Your task to perform on an android device: Add "macbook air" to the cart on newegg.com Image 0: 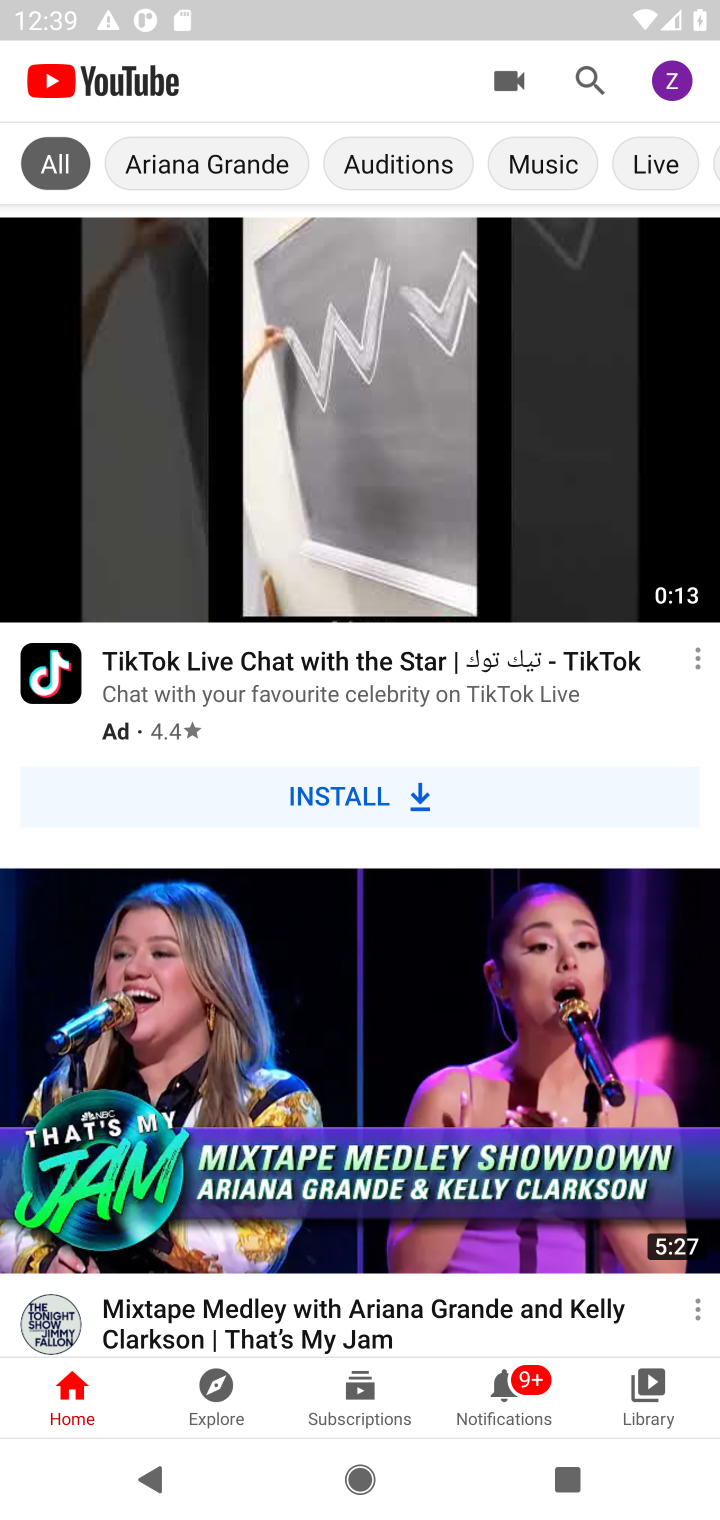
Step 0: press home button
Your task to perform on an android device: Add "macbook air" to the cart on newegg.com Image 1: 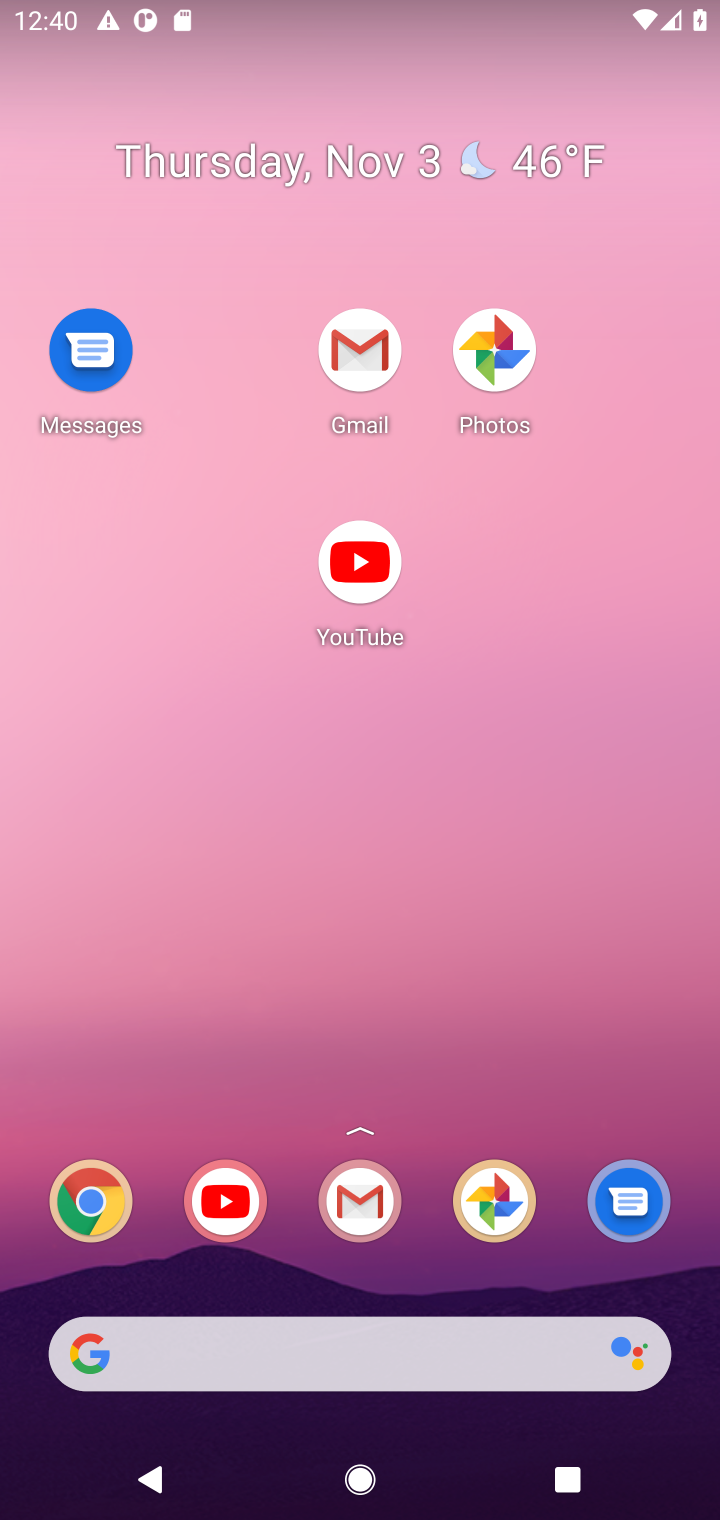
Step 1: drag from (539, 813) to (604, 99)
Your task to perform on an android device: Add "macbook air" to the cart on newegg.com Image 2: 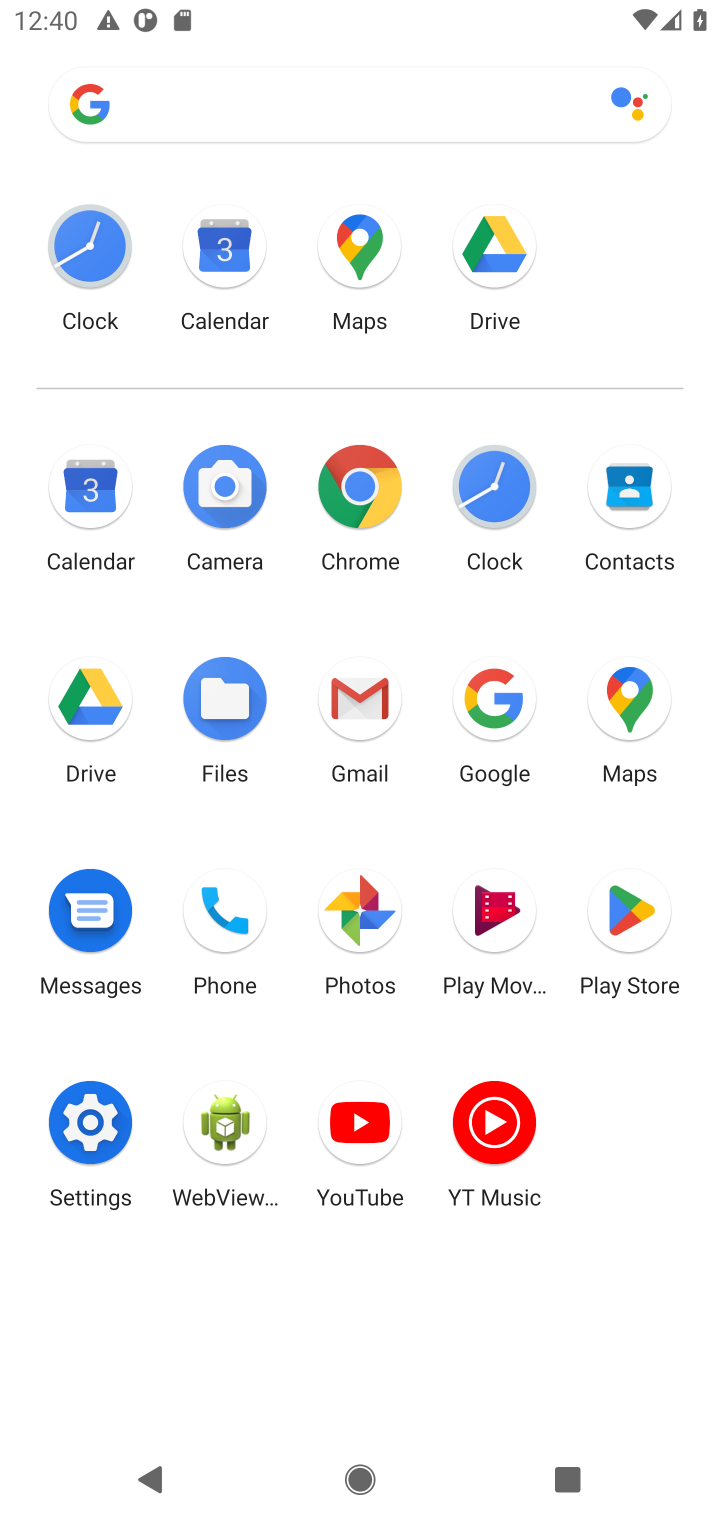
Step 2: click (356, 485)
Your task to perform on an android device: Add "macbook air" to the cart on newegg.com Image 3: 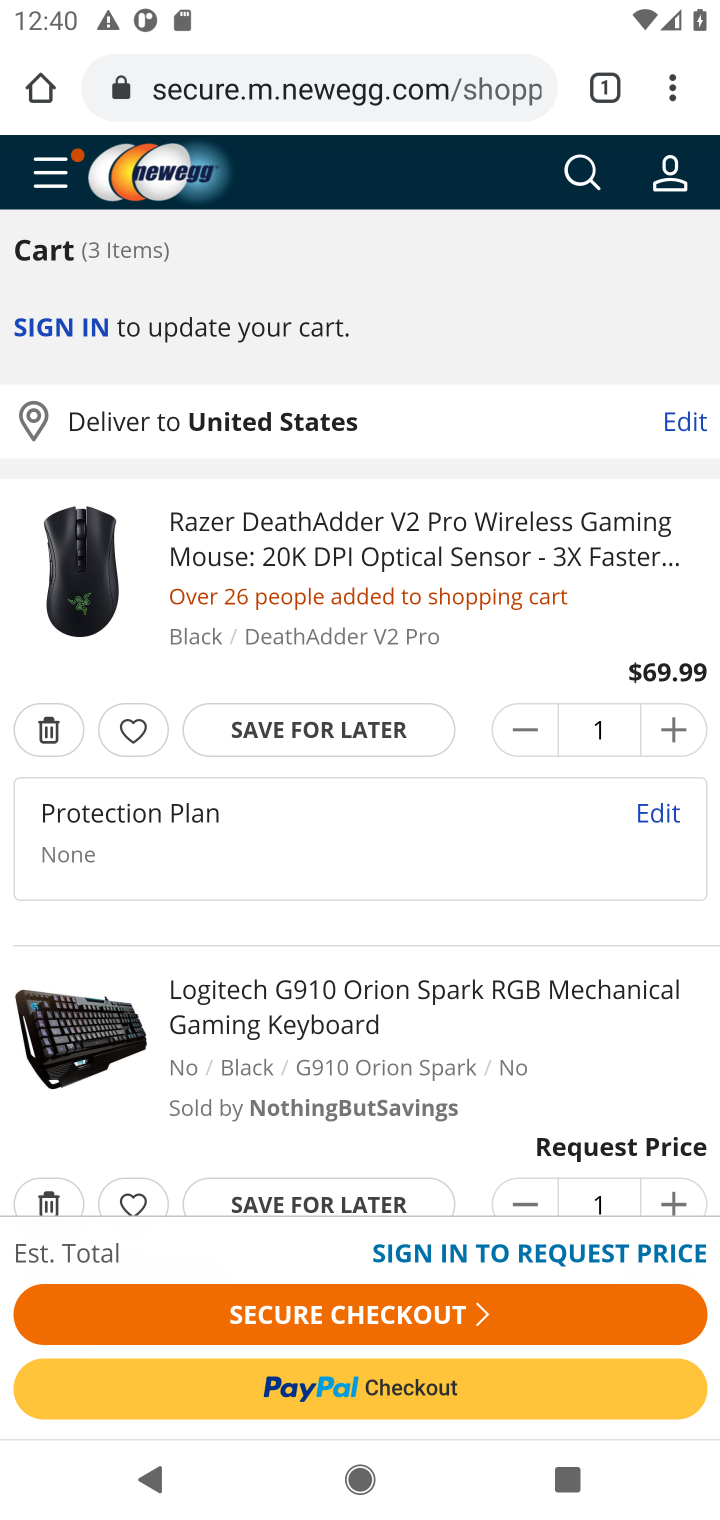
Step 3: click (431, 98)
Your task to perform on an android device: Add "macbook air" to the cart on newegg.com Image 4: 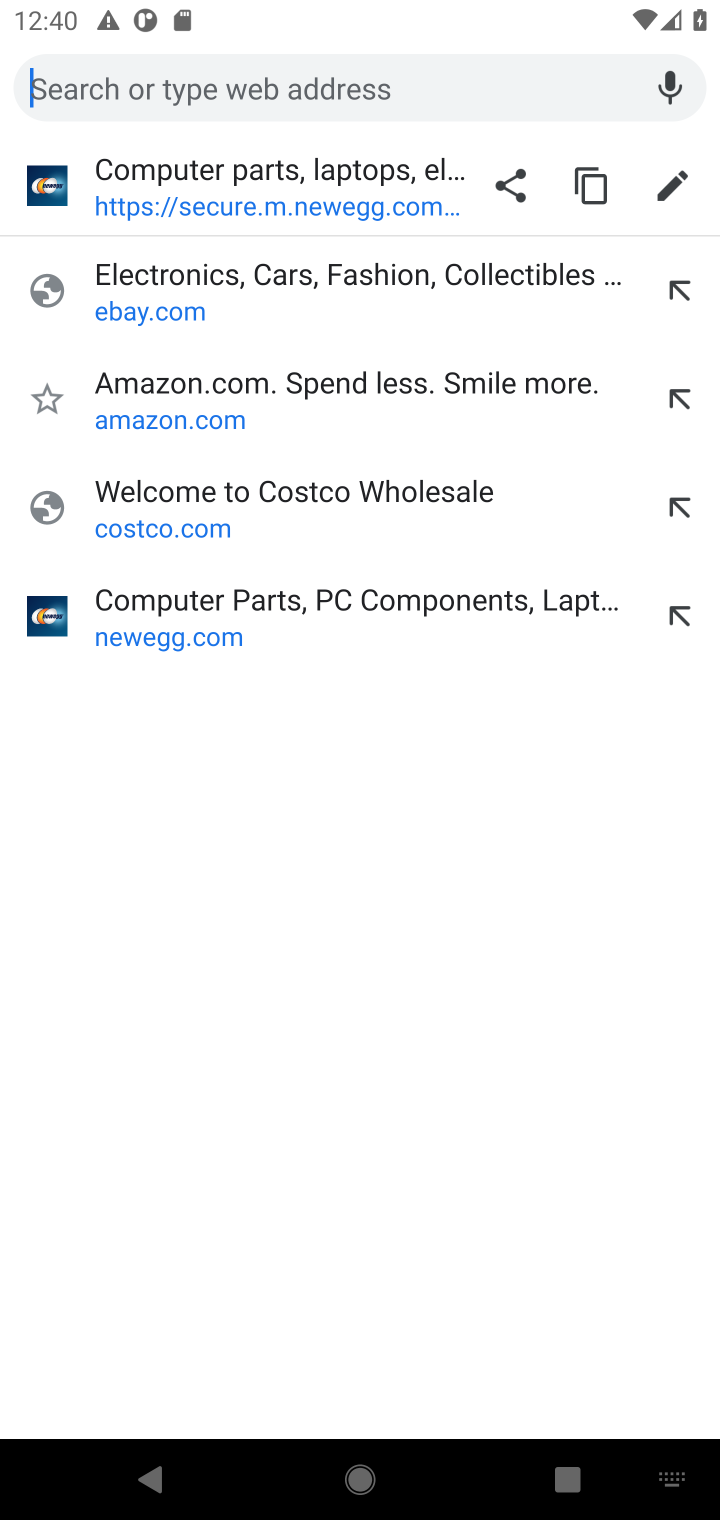
Step 4: type "newegg.com"
Your task to perform on an android device: Add "macbook air" to the cart on newegg.com Image 5: 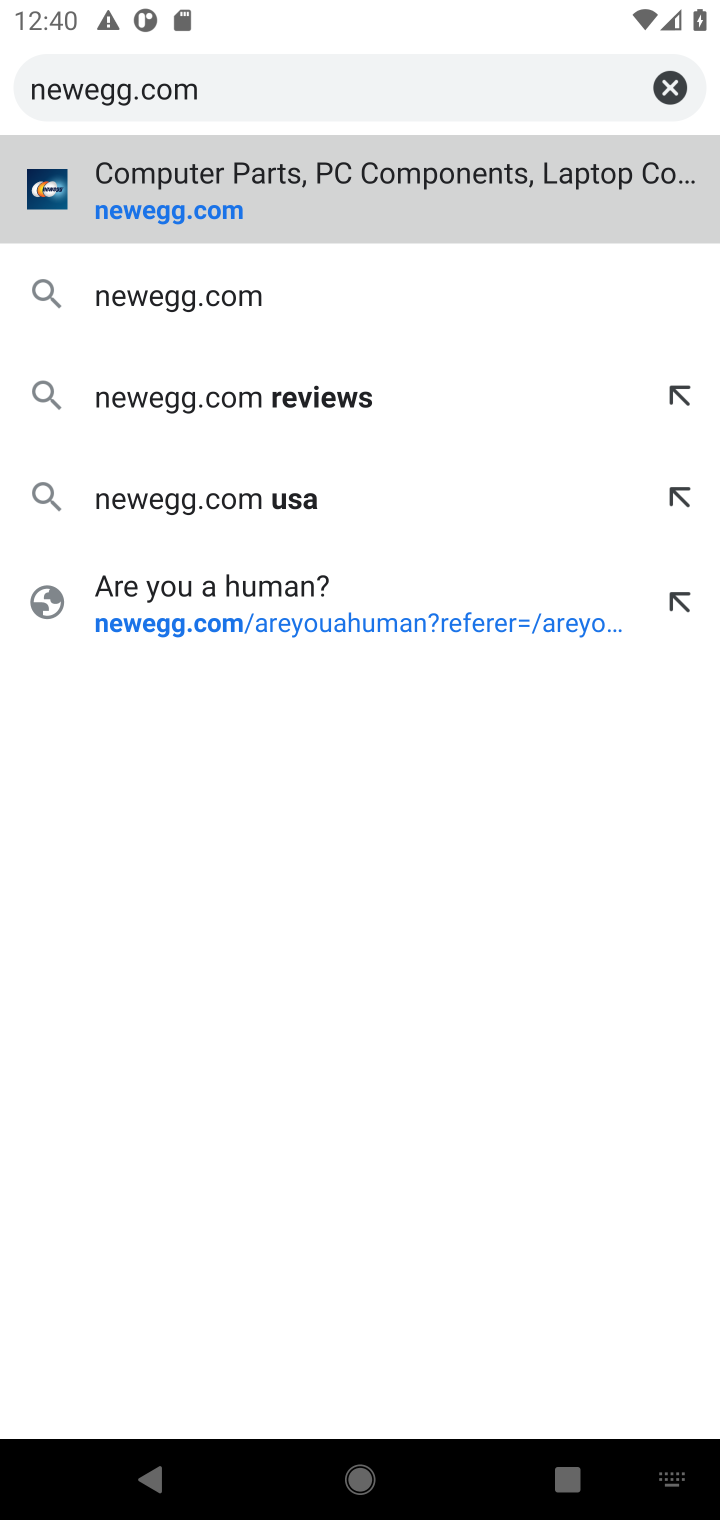
Step 5: press enter
Your task to perform on an android device: Add "macbook air" to the cart on newegg.com Image 6: 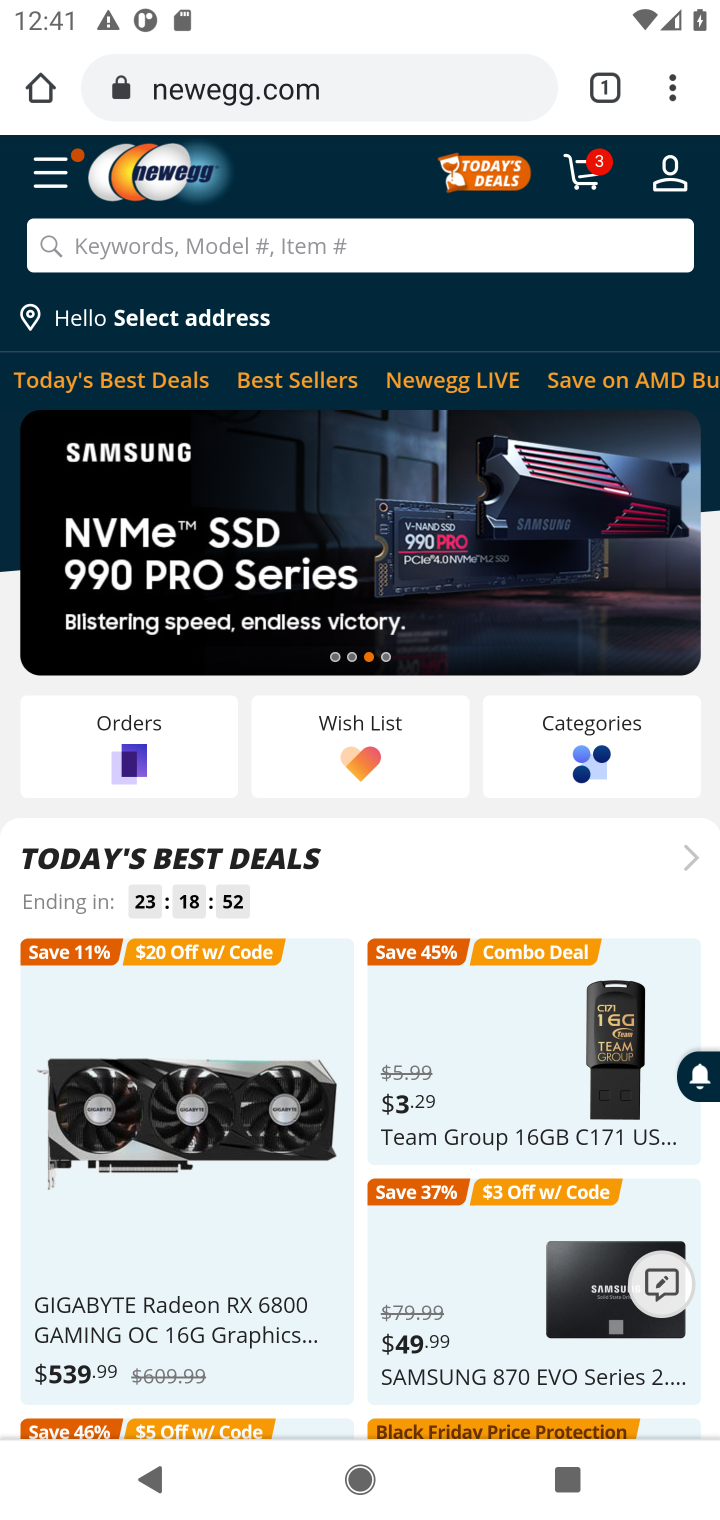
Step 6: click (301, 235)
Your task to perform on an android device: Add "macbook air" to the cart on newegg.com Image 7: 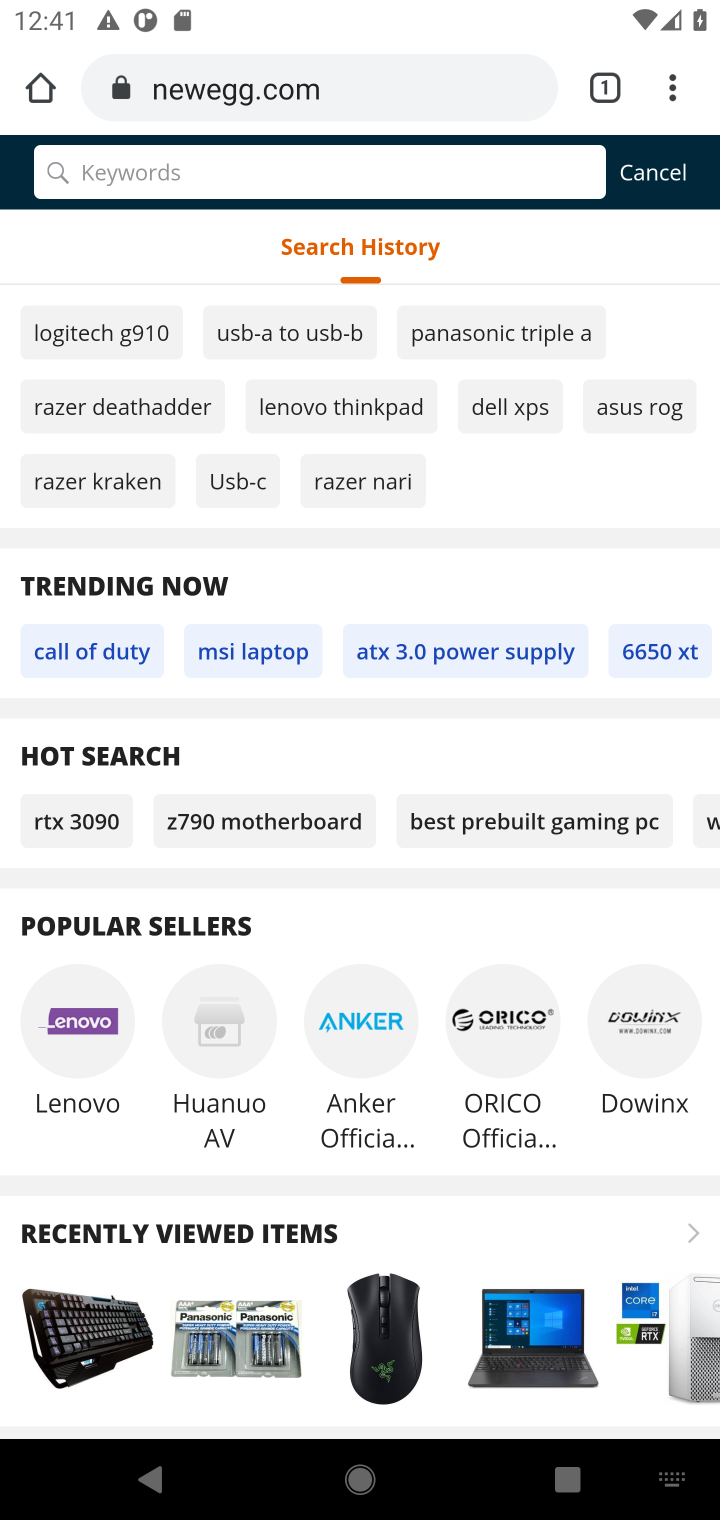
Step 7: type ""
Your task to perform on an android device: Add "macbook air" to the cart on newegg.com Image 8: 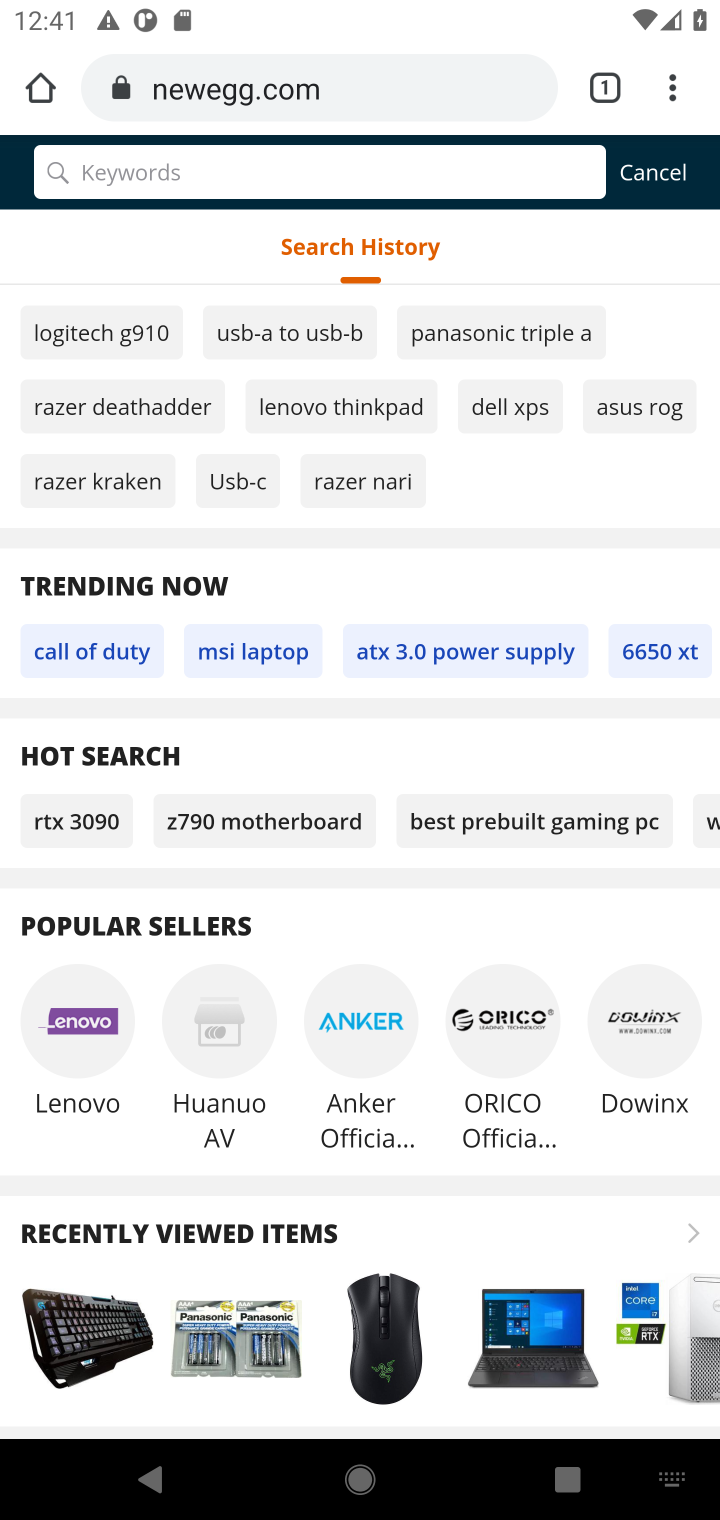
Step 8: type ""
Your task to perform on an android device: Add "macbook air" to the cart on newegg.com Image 9: 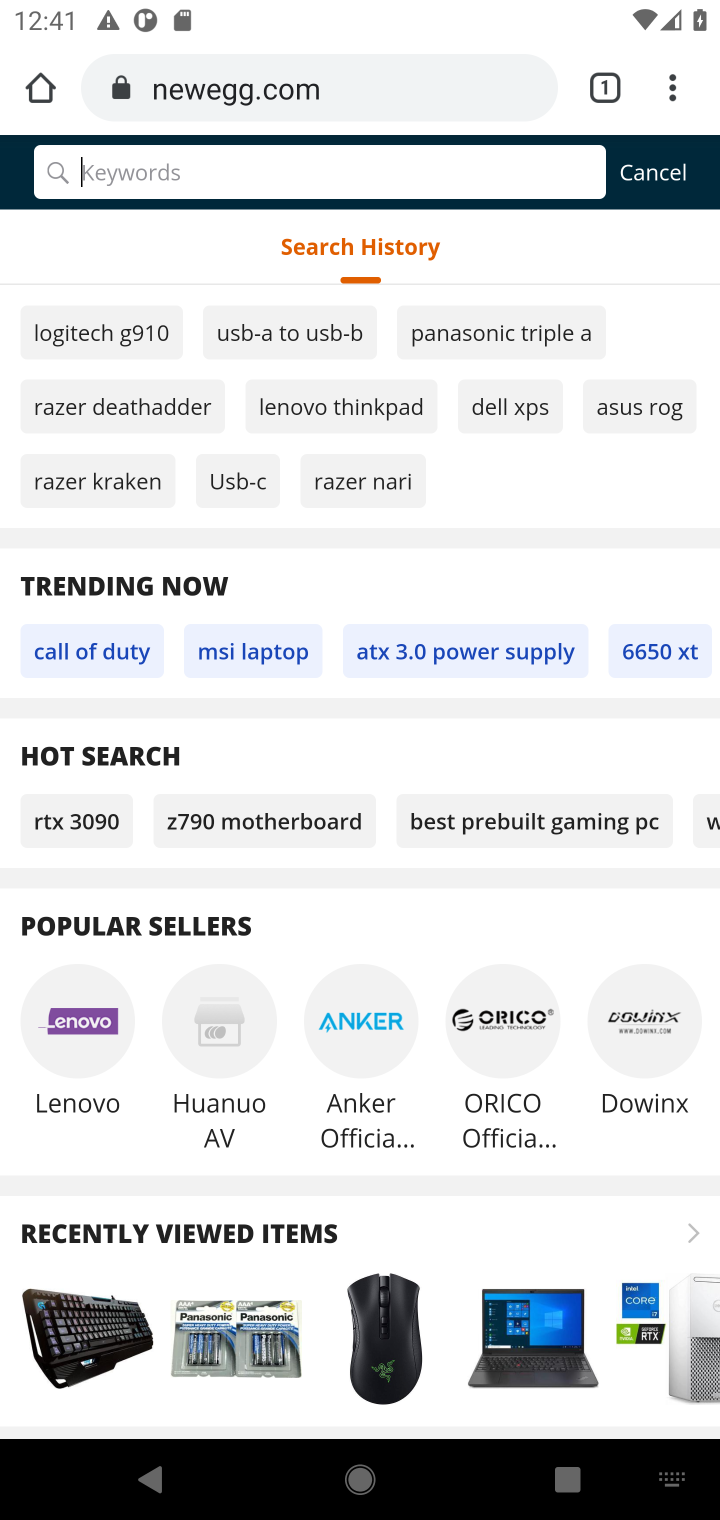
Step 9: type "macbook air"
Your task to perform on an android device: Add "macbook air" to the cart on newegg.com Image 10: 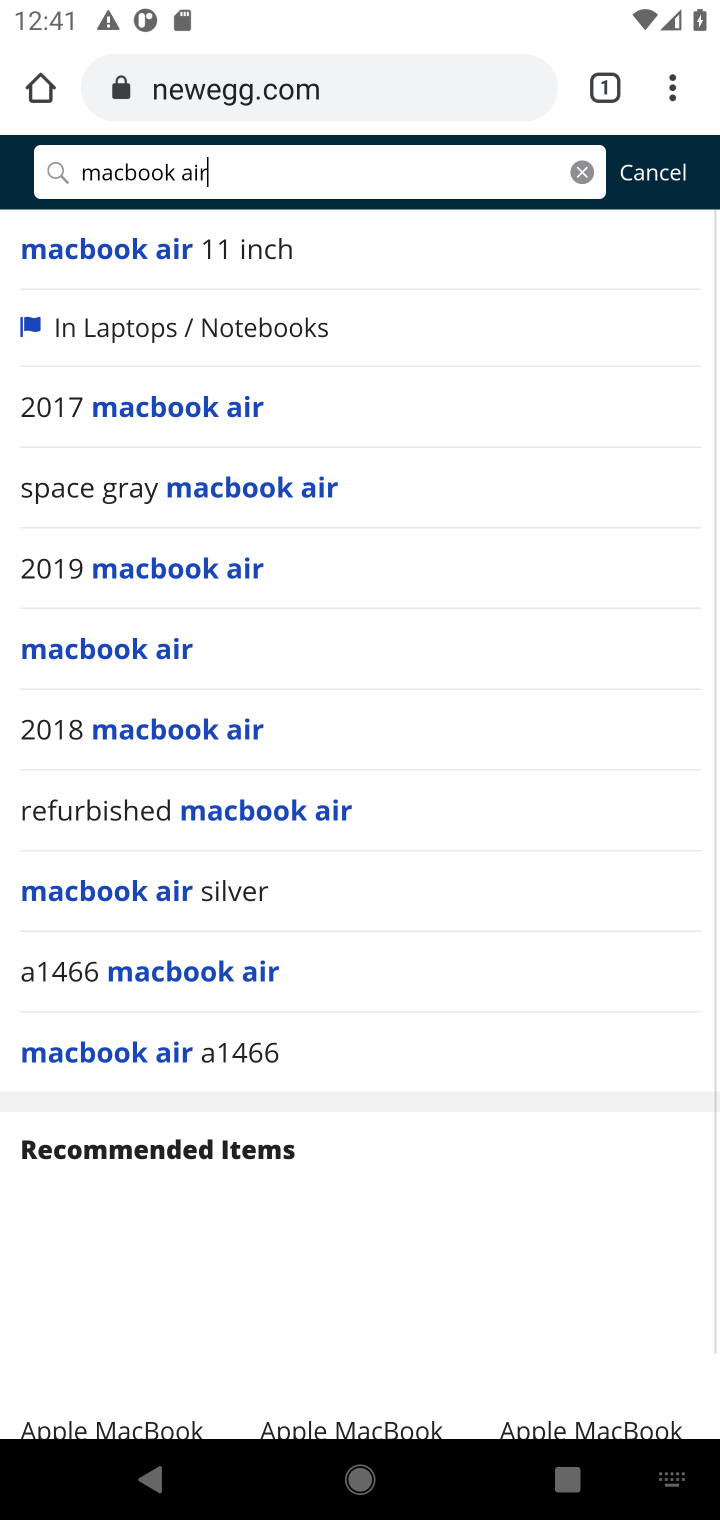
Step 10: press enter
Your task to perform on an android device: Add "macbook air" to the cart on newegg.com Image 11: 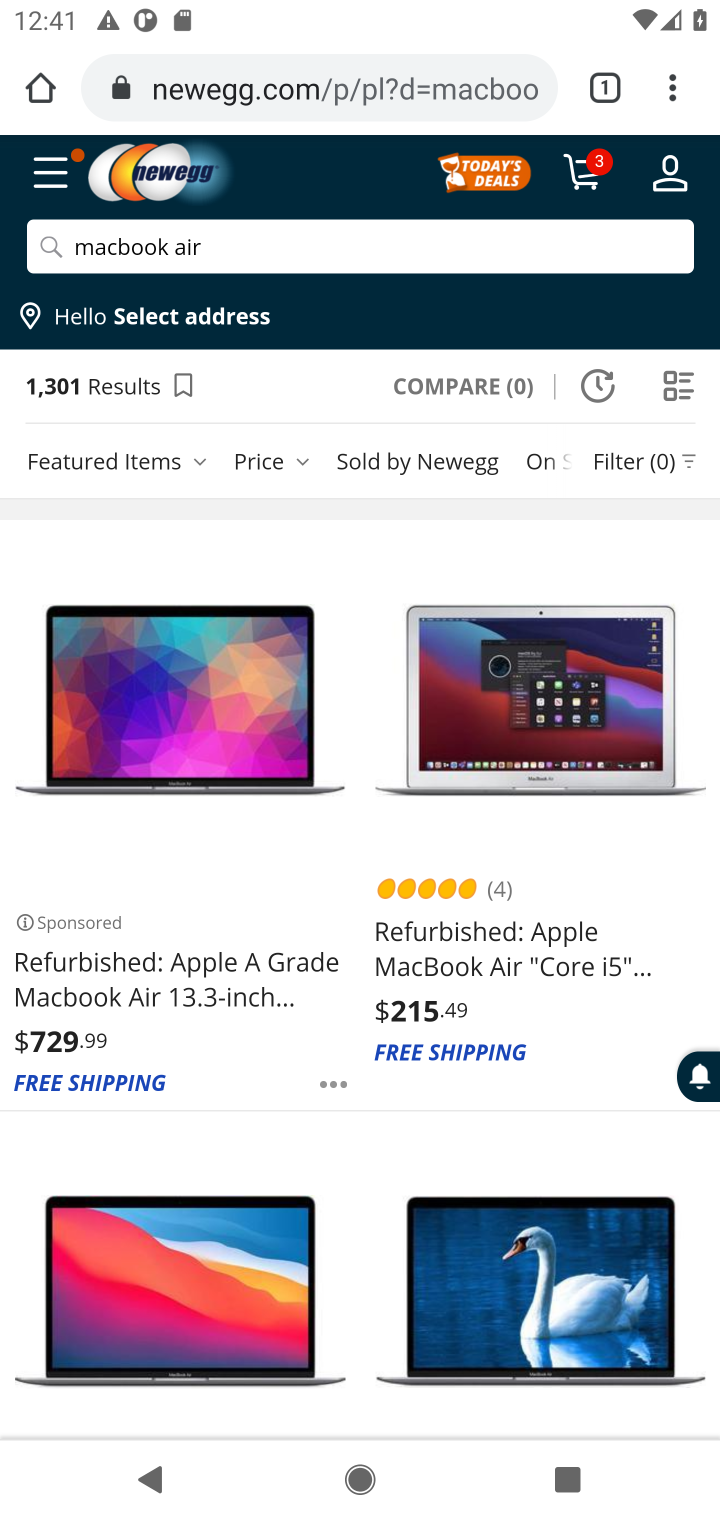
Step 11: drag from (514, 929) to (537, 320)
Your task to perform on an android device: Add "macbook air" to the cart on newegg.com Image 12: 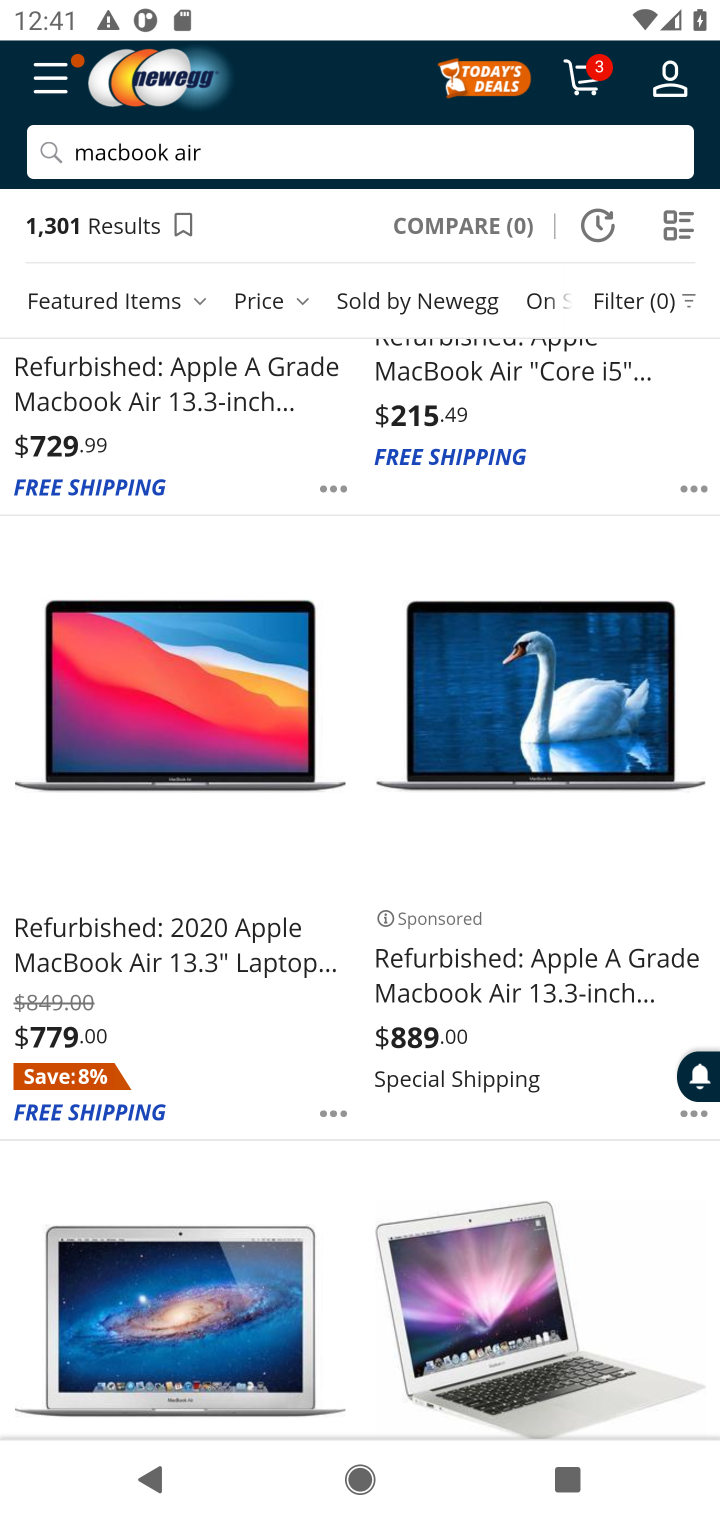
Step 12: drag from (516, 515) to (504, 928)
Your task to perform on an android device: Add "macbook air" to the cart on newegg.com Image 13: 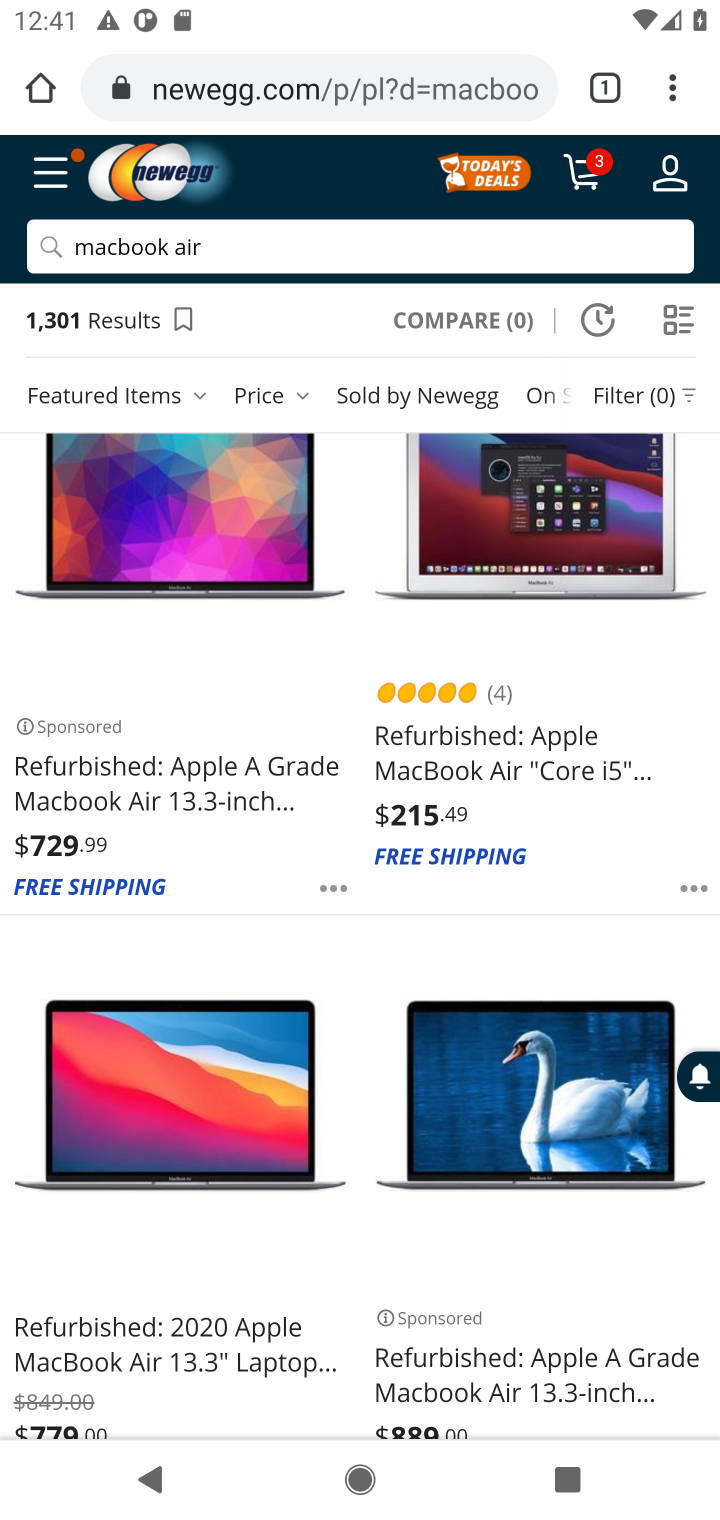
Step 13: drag from (465, 608) to (565, 245)
Your task to perform on an android device: Add "macbook air" to the cart on newegg.com Image 14: 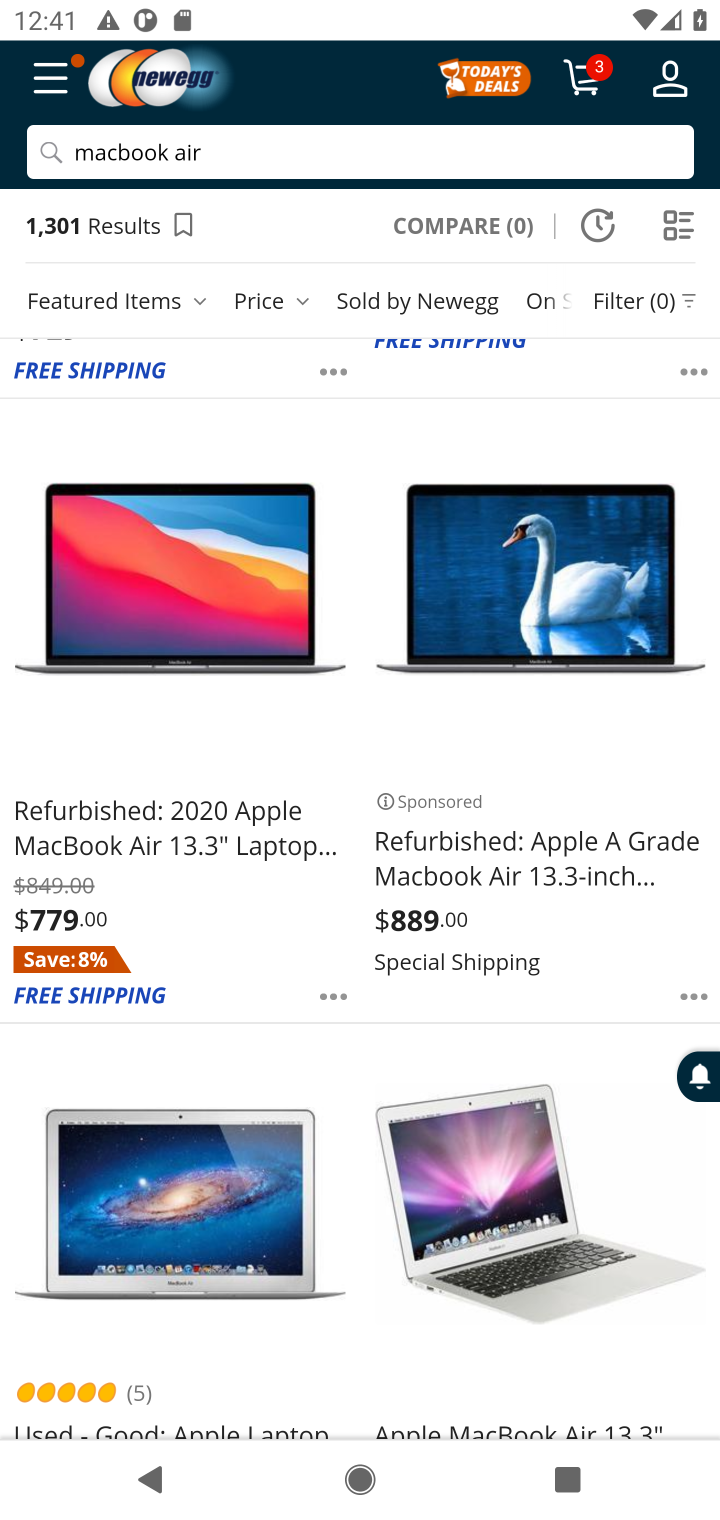
Step 14: drag from (228, 837) to (349, 287)
Your task to perform on an android device: Add "macbook air" to the cart on newegg.com Image 15: 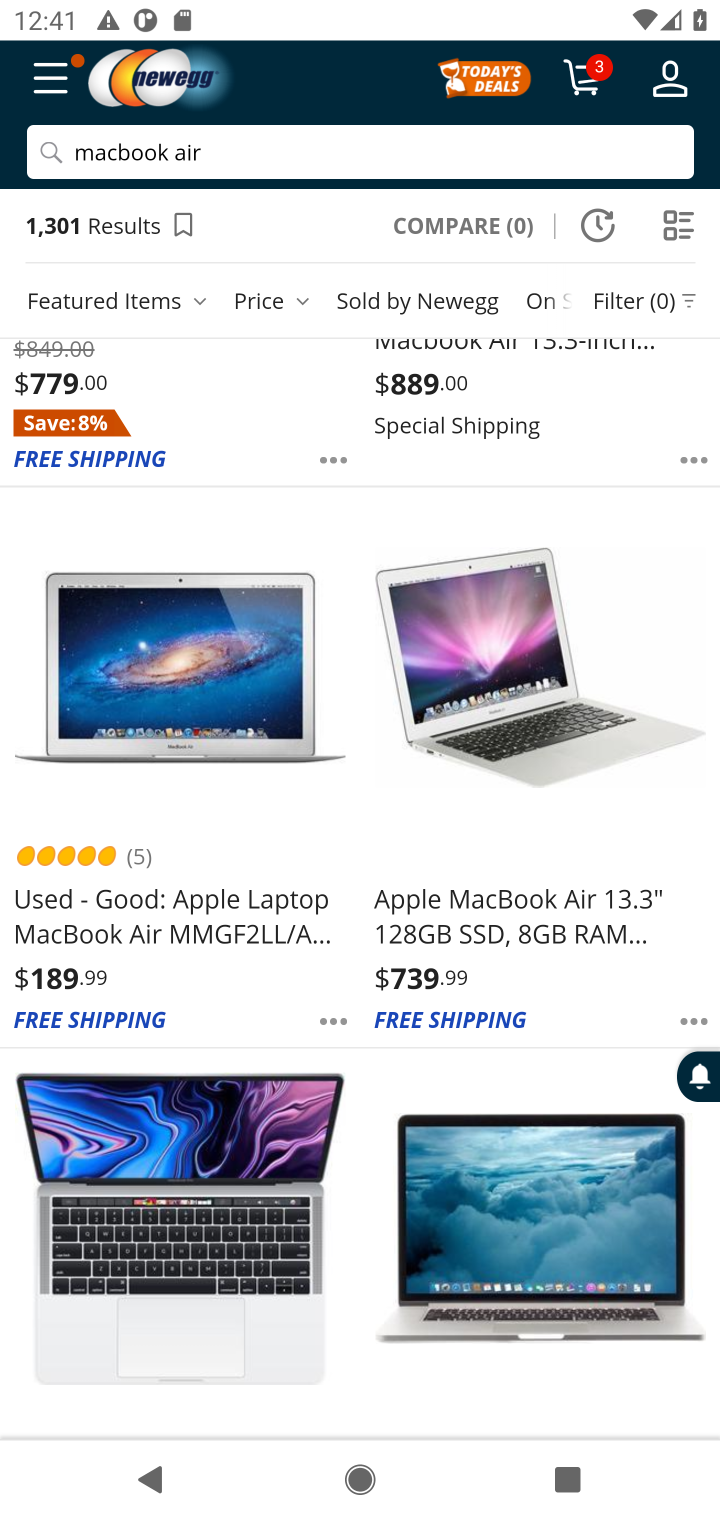
Step 15: click (494, 910)
Your task to perform on an android device: Add "macbook air" to the cart on newegg.com Image 16: 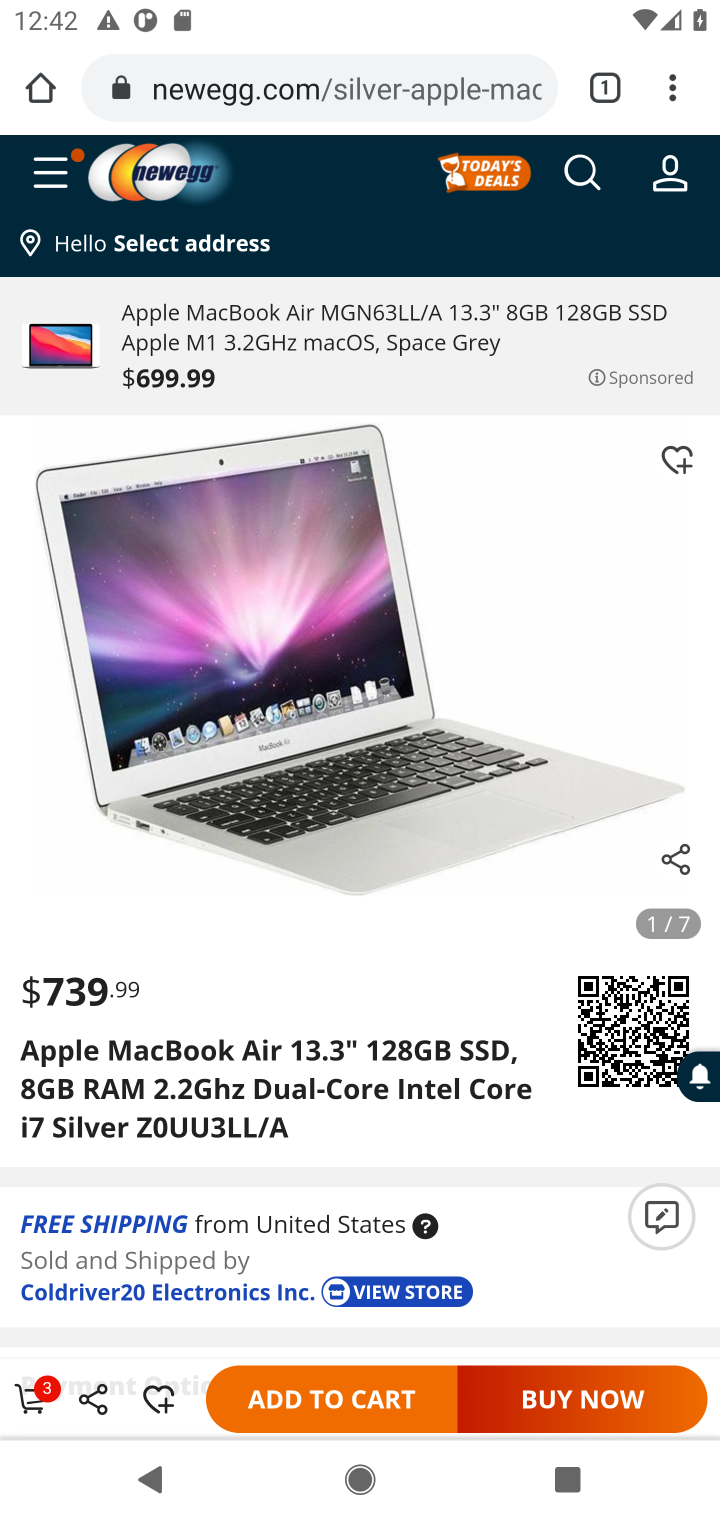
Step 16: click (320, 1403)
Your task to perform on an android device: Add "macbook air" to the cart on newegg.com Image 17: 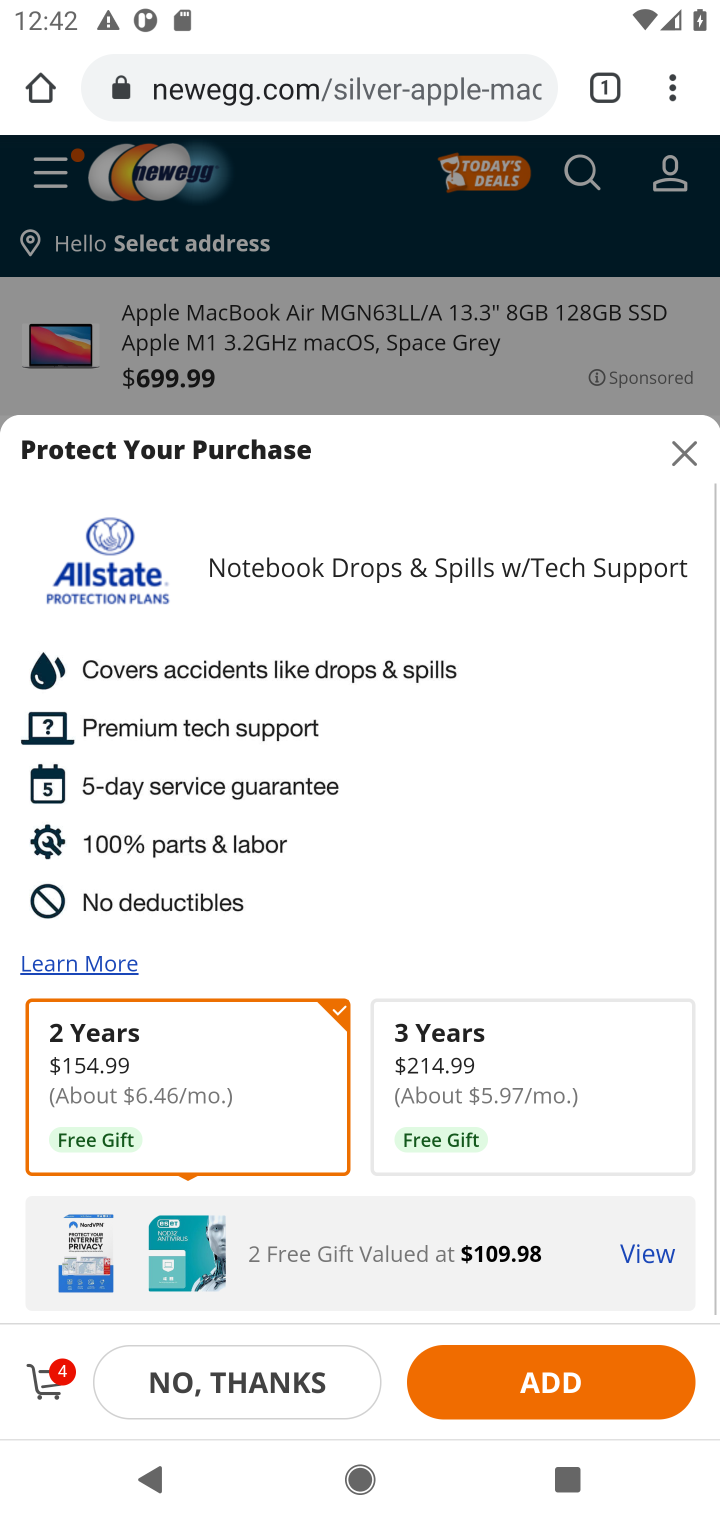
Step 17: task complete